Your task to perform on an android device: all mails in gmail Image 0: 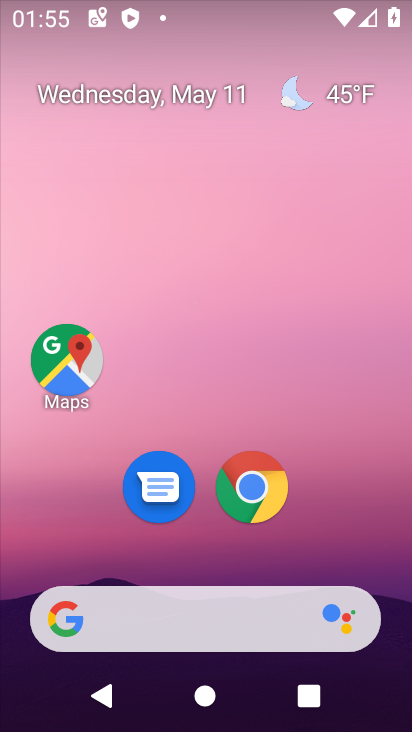
Step 0: drag from (121, 588) to (207, 145)
Your task to perform on an android device: all mails in gmail Image 1: 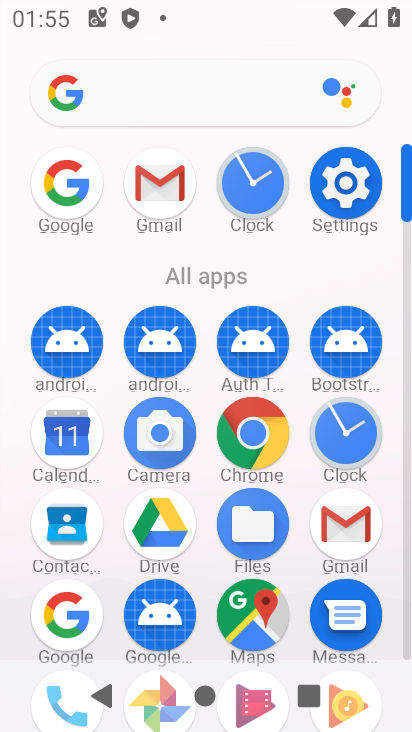
Step 1: drag from (125, 676) to (194, 446)
Your task to perform on an android device: all mails in gmail Image 2: 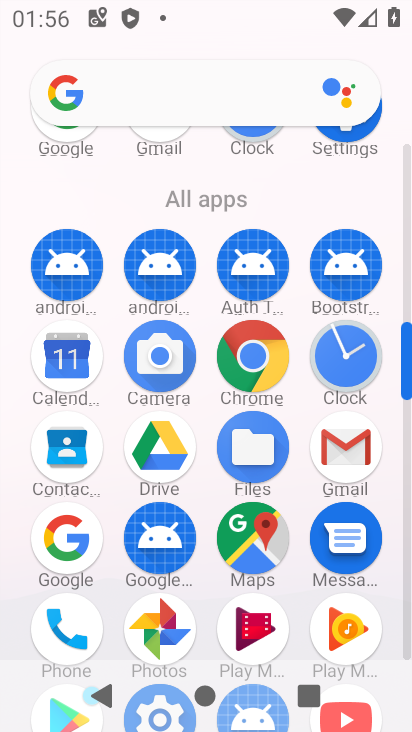
Step 2: click (351, 460)
Your task to perform on an android device: all mails in gmail Image 3: 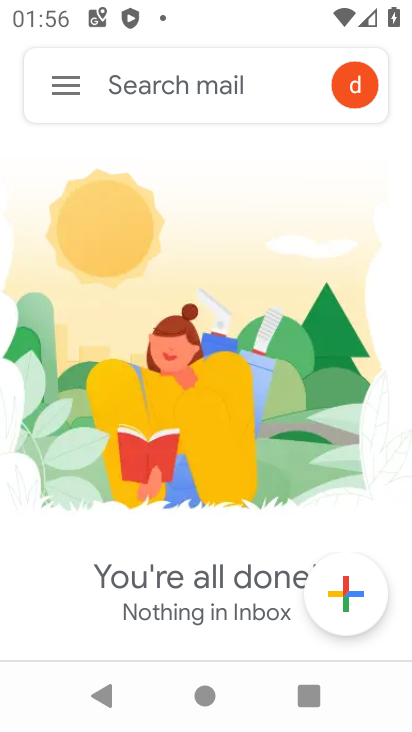
Step 3: click (80, 86)
Your task to perform on an android device: all mails in gmail Image 4: 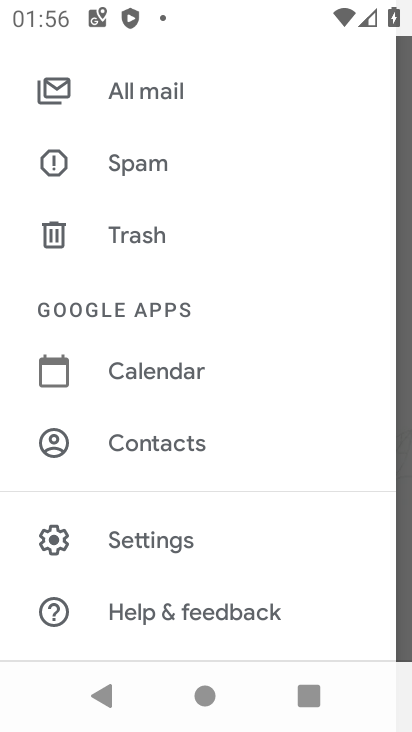
Step 4: click (209, 98)
Your task to perform on an android device: all mails in gmail Image 5: 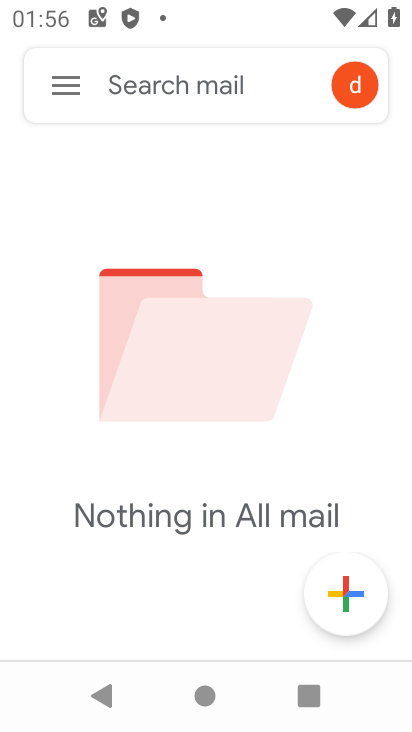
Step 5: task complete